Your task to perform on an android device: change your default location settings in chrome Image 0: 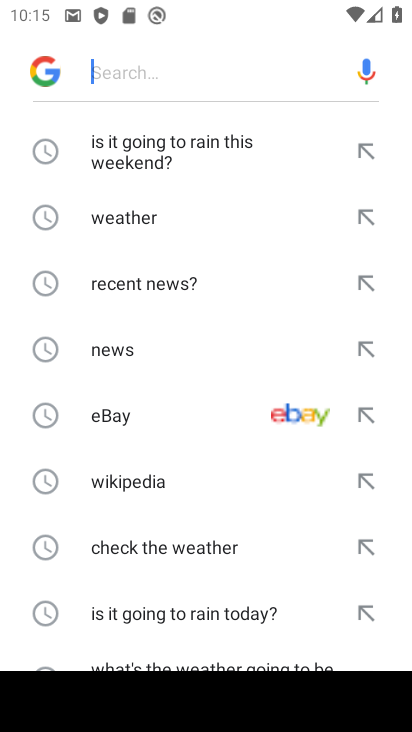
Step 0: press back button
Your task to perform on an android device: change your default location settings in chrome Image 1: 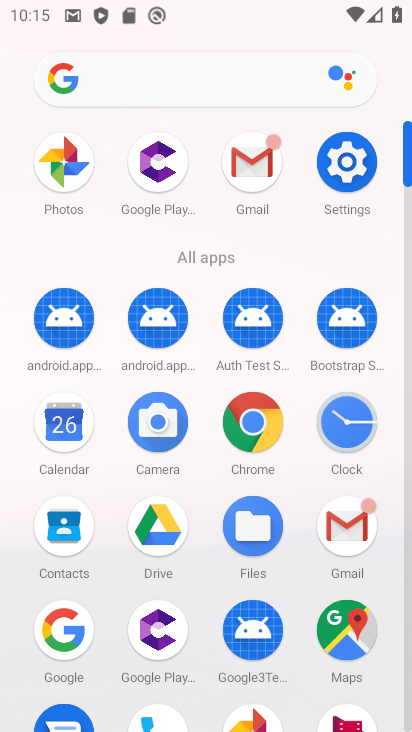
Step 1: click (244, 413)
Your task to perform on an android device: change your default location settings in chrome Image 2: 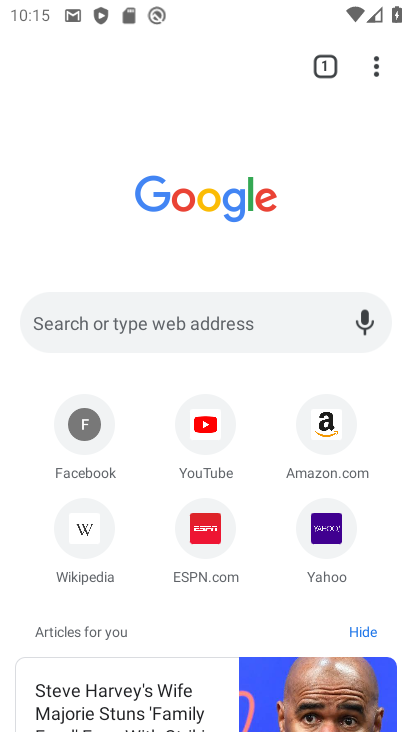
Step 2: click (385, 68)
Your task to perform on an android device: change your default location settings in chrome Image 3: 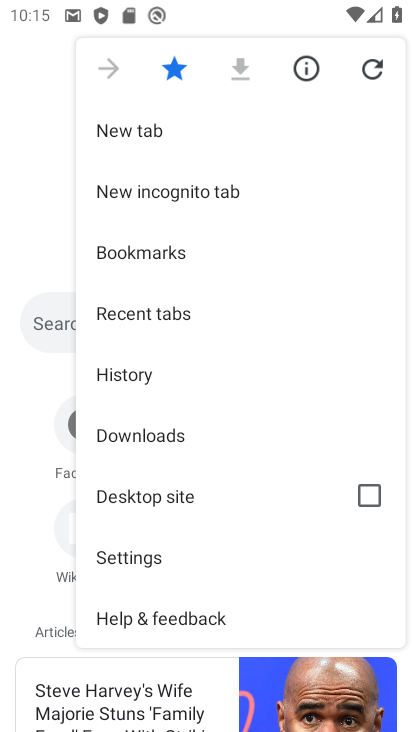
Step 3: click (147, 552)
Your task to perform on an android device: change your default location settings in chrome Image 4: 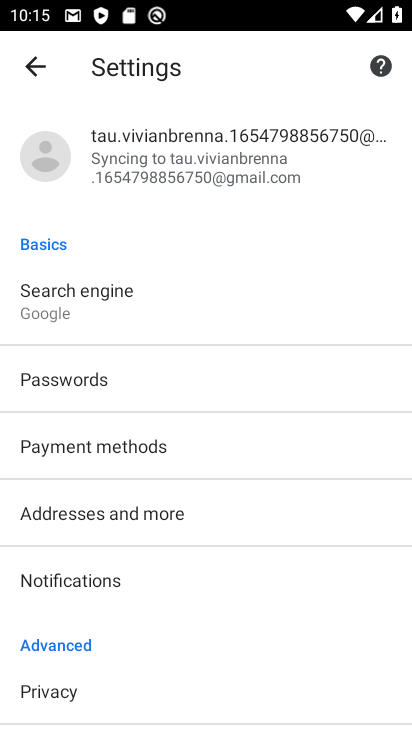
Step 4: drag from (240, 602) to (172, 277)
Your task to perform on an android device: change your default location settings in chrome Image 5: 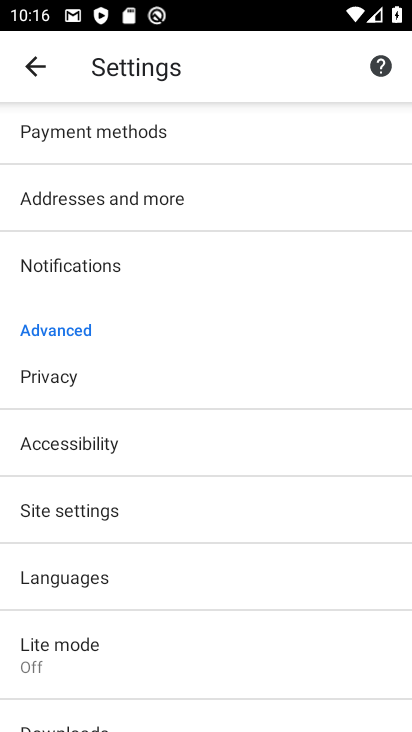
Step 5: click (110, 495)
Your task to perform on an android device: change your default location settings in chrome Image 6: 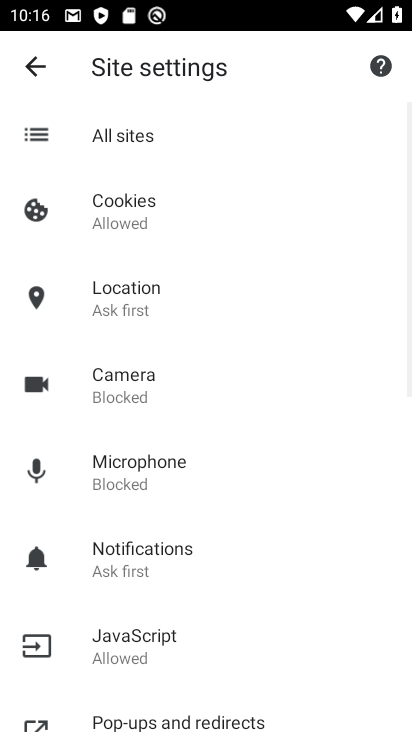
Step 6: click (139, 299)
Your task to perform on an android device: change your default location settings in chrome Image 7: 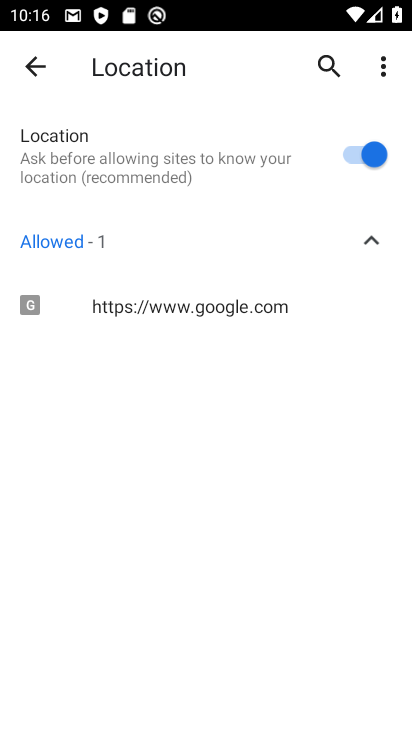
Step 7: click (368, 144)
Your task to perform on an android device: change your default location settings in chrome Image 8: 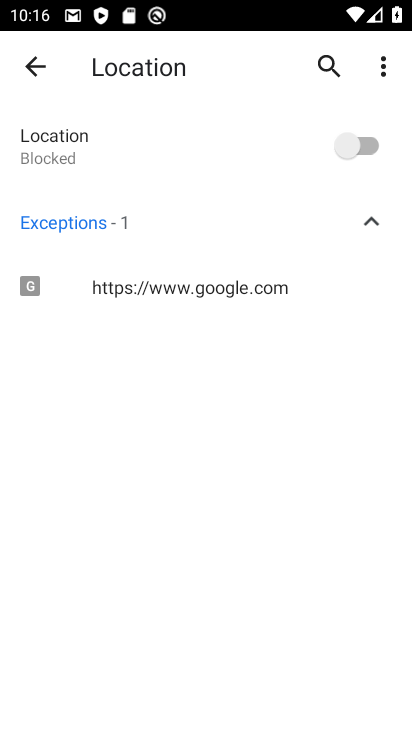
Step 8: task complete